Your task to perform on an android device: Turn on the flashlight Image 0: 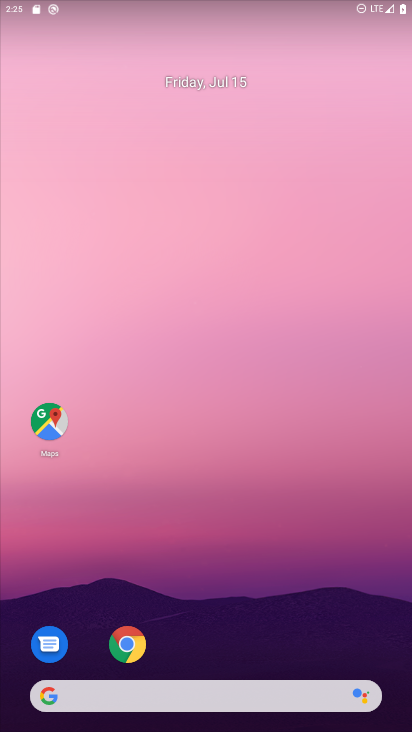
Step 0: drag from (70, 477) to (266, 116)
Your task to perform on an android device: Turn on the flashlight Image 1: 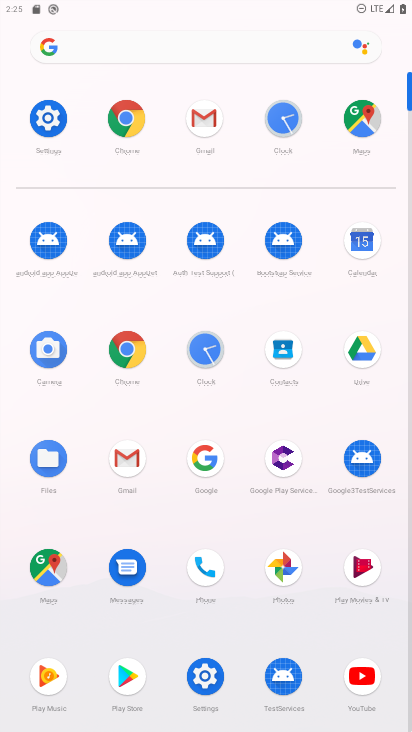
Step 1: click (29, 119)
Your task to perform on an android device: Turn on the flashlight Image 2: 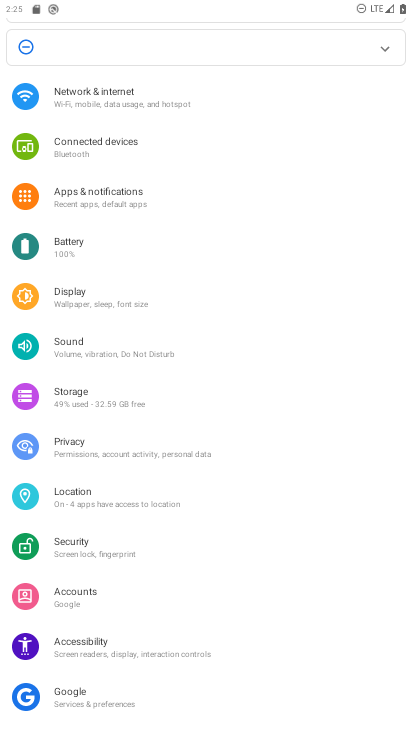
Step 2: task complete